Your task to perform on an android device: Go to Yahoo.com Image 0: 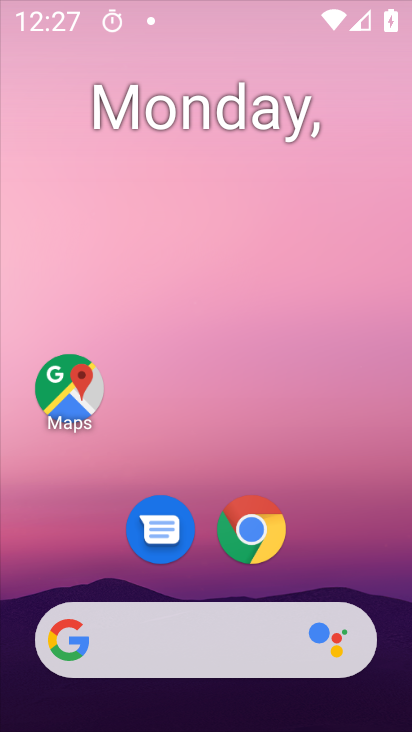
Step 0: drag from (198, 626) to (103, 49)
Your task to perform on an android device: Go to Yahoo.com Image 1: 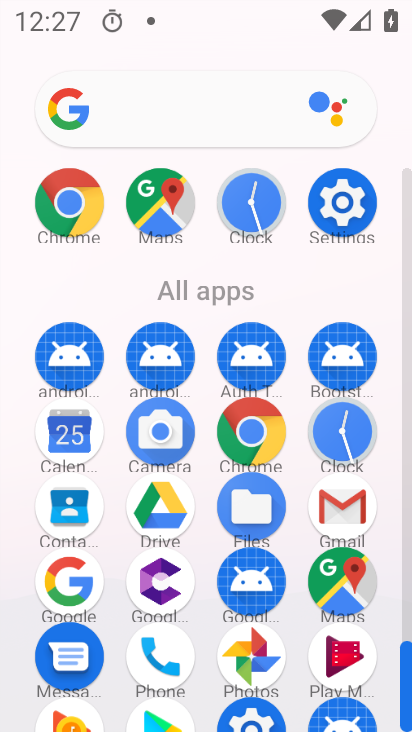
Step 1: click (60, 202)
Your task to perform on an android device: Go to Yahoo.com Image 2: 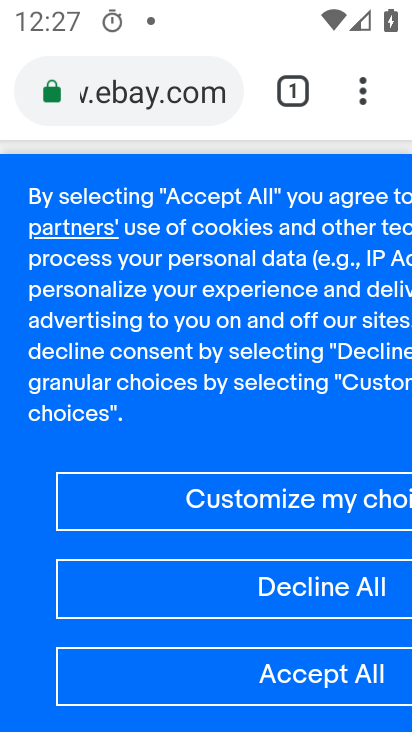
Step 2: click (130, 87)
Your task to perform on an android device: Go to Yahoo.com Image 3: 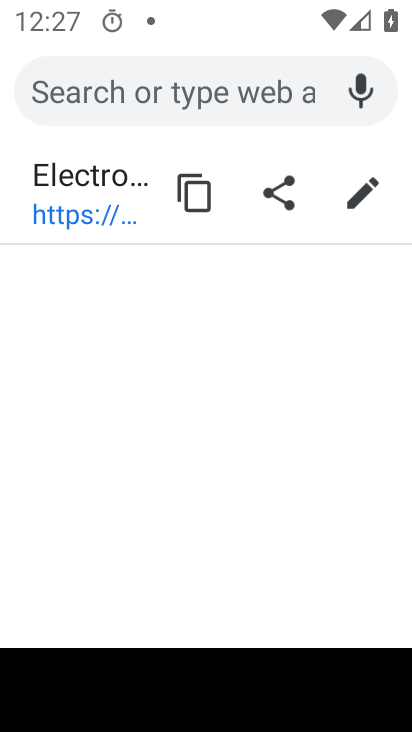
Step 3: type "yahoo.com"
Your task to perform on an android device: Go to Yahoo.com Image 4: 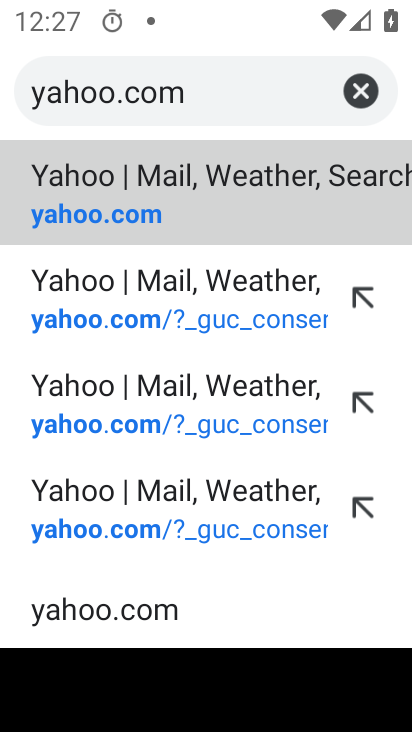
Step 4: click (229, 212)
Your task to perform on an android device: Go to Yahoo.com Image 5: 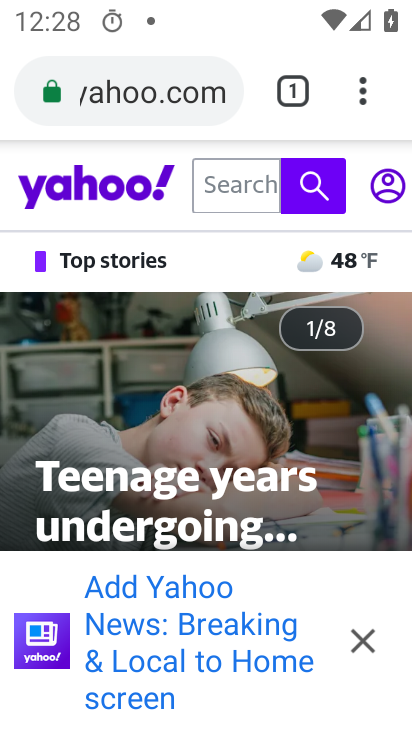
Step 5: task complete